Your task to perform on an android device: open app "Firefox Browser" (install if not already installed) Image 0: 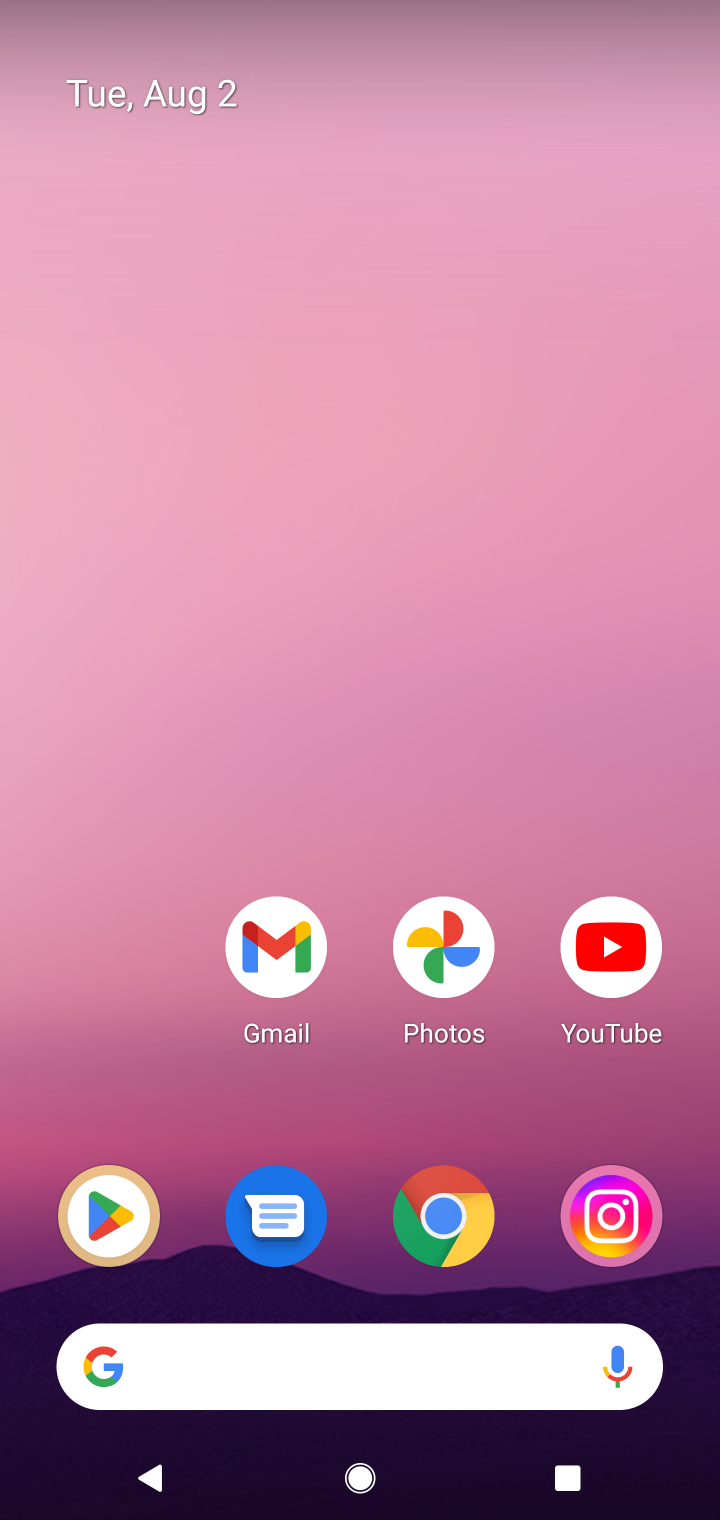
Step 0: click (125, 1224)
Your task to perform on an android device: open app "Firefox Browser" (install if not already installed) Image 1: 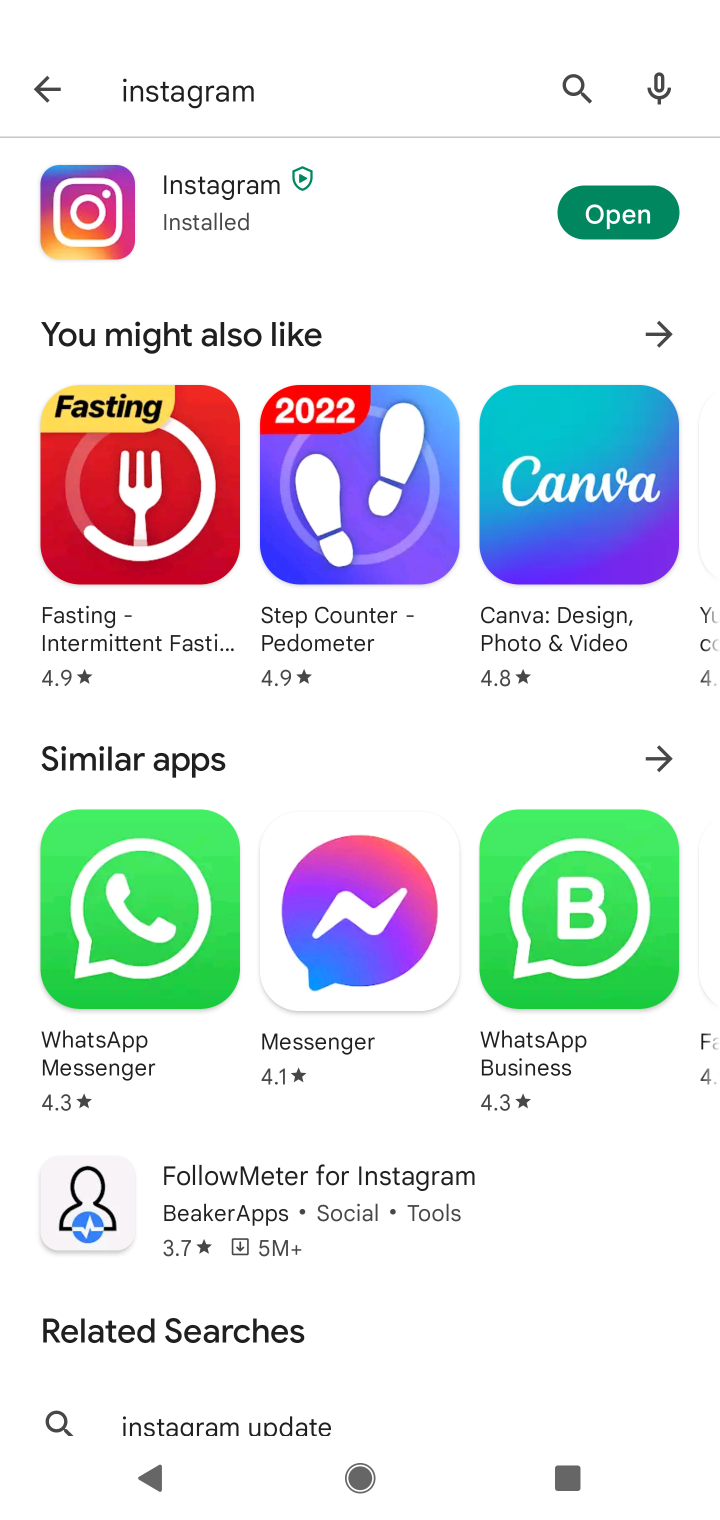
Step 1: click (580, 80)
Your task to perform on an android device: open app "Firefox Browser" (install if not already installed) Image 2: 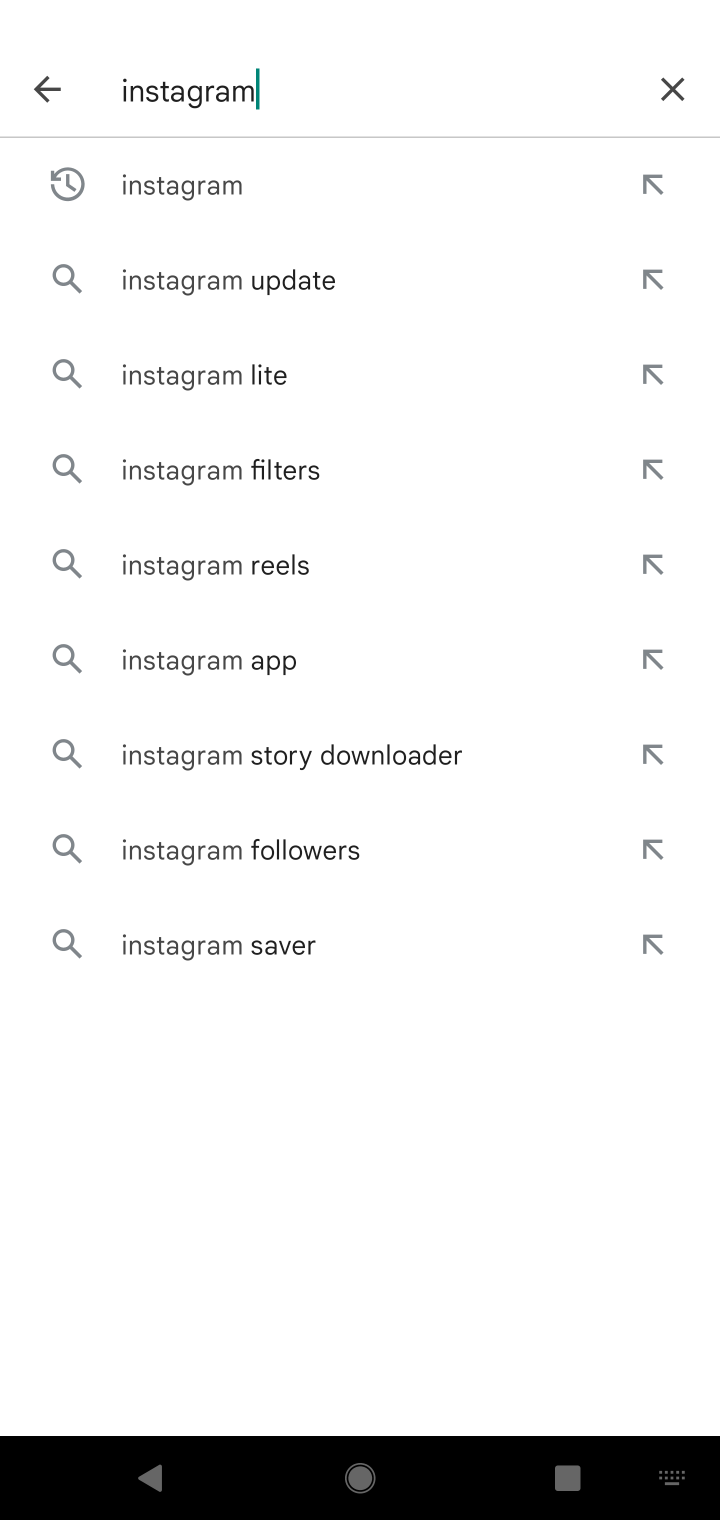
Step 2: click (673, 100)
Your task to perform on an android device: open app "Firefox Browser" (install if not already installed) Image 3: 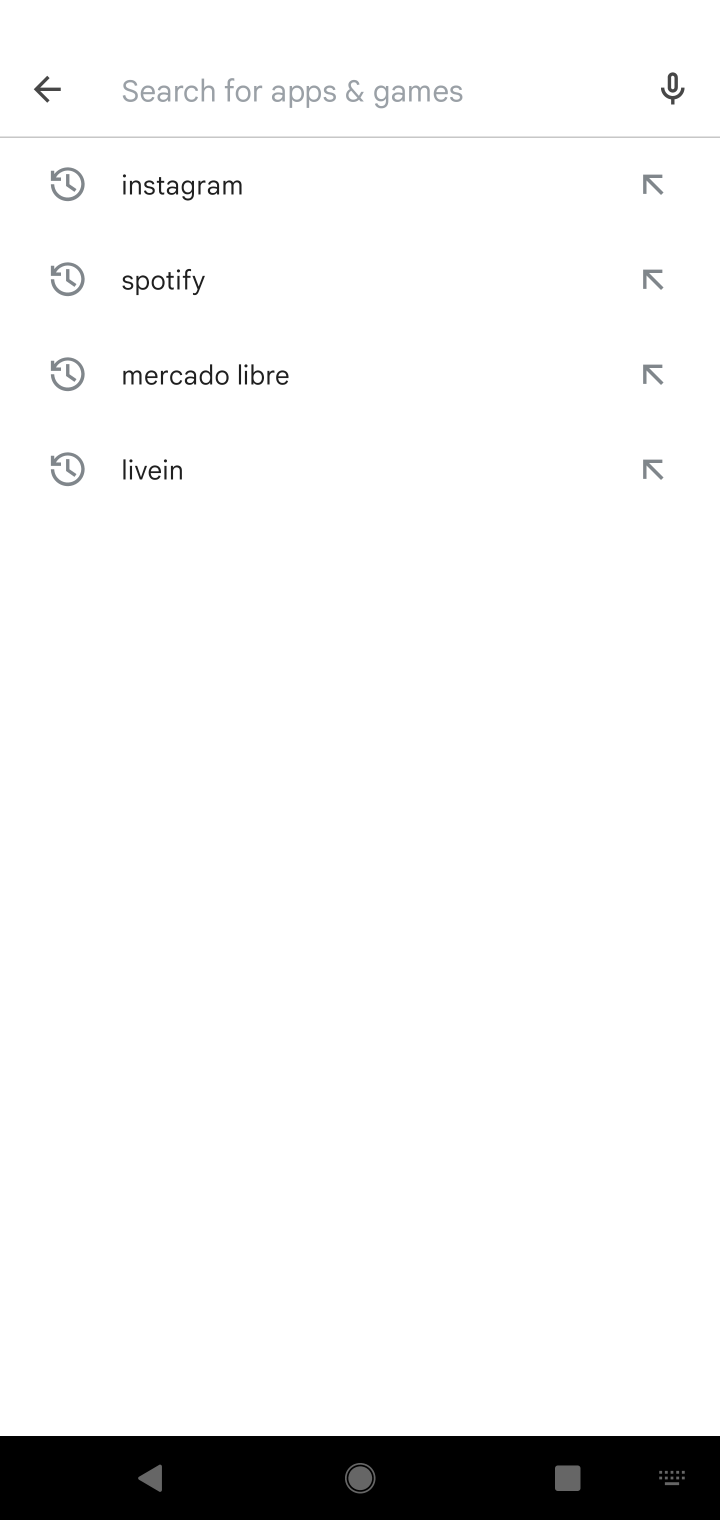
Step 3: type "firebox"
Your task to perform on an android device: open app "Firefox Browser" (install if not already installed) Image 4: 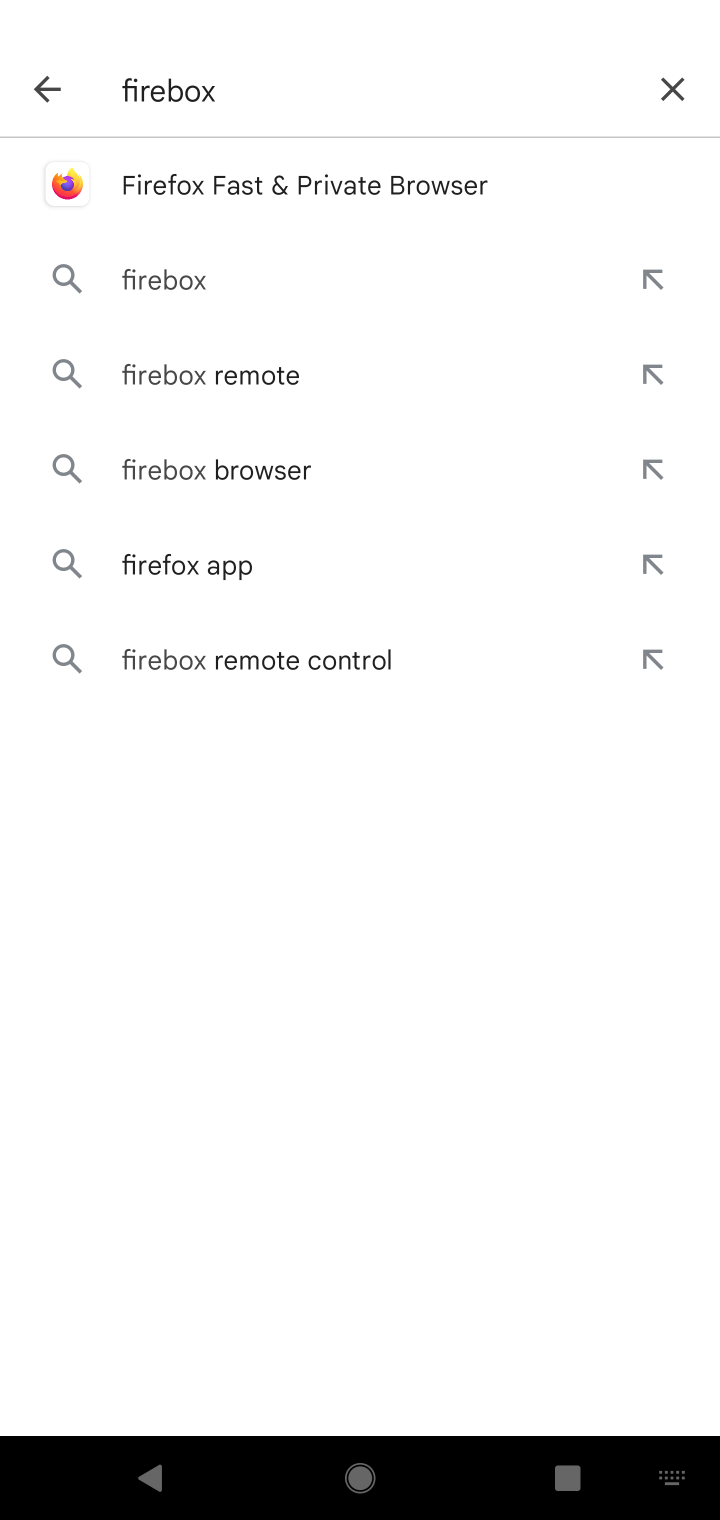
Step 4: click (390, 215)
Your task to perform on an android device: open app "Firefox Browser" (install if not already installed) Image 5: 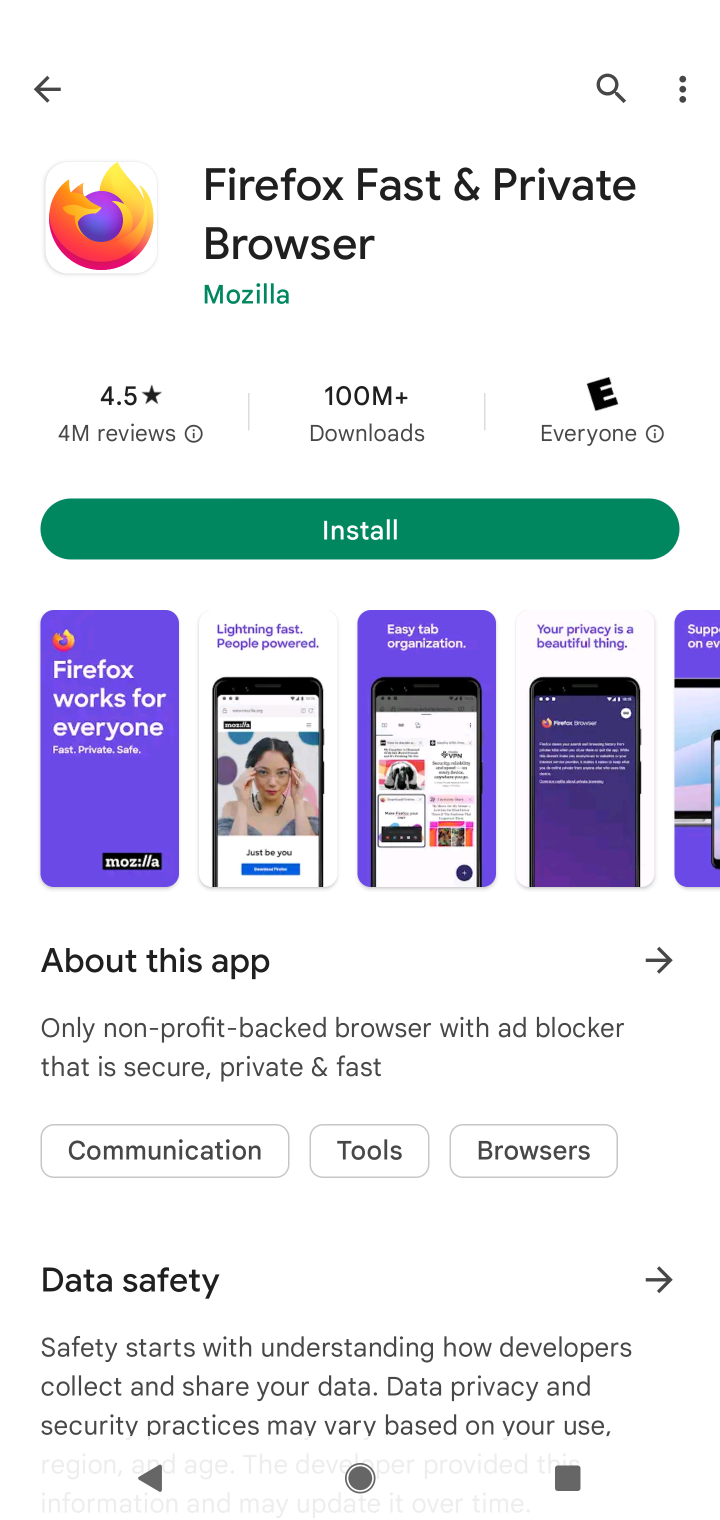
Step 5: click (551, 541)
Your task to perform on an android device: open app "Firefox Browser" (install if not already installed) Image 6: 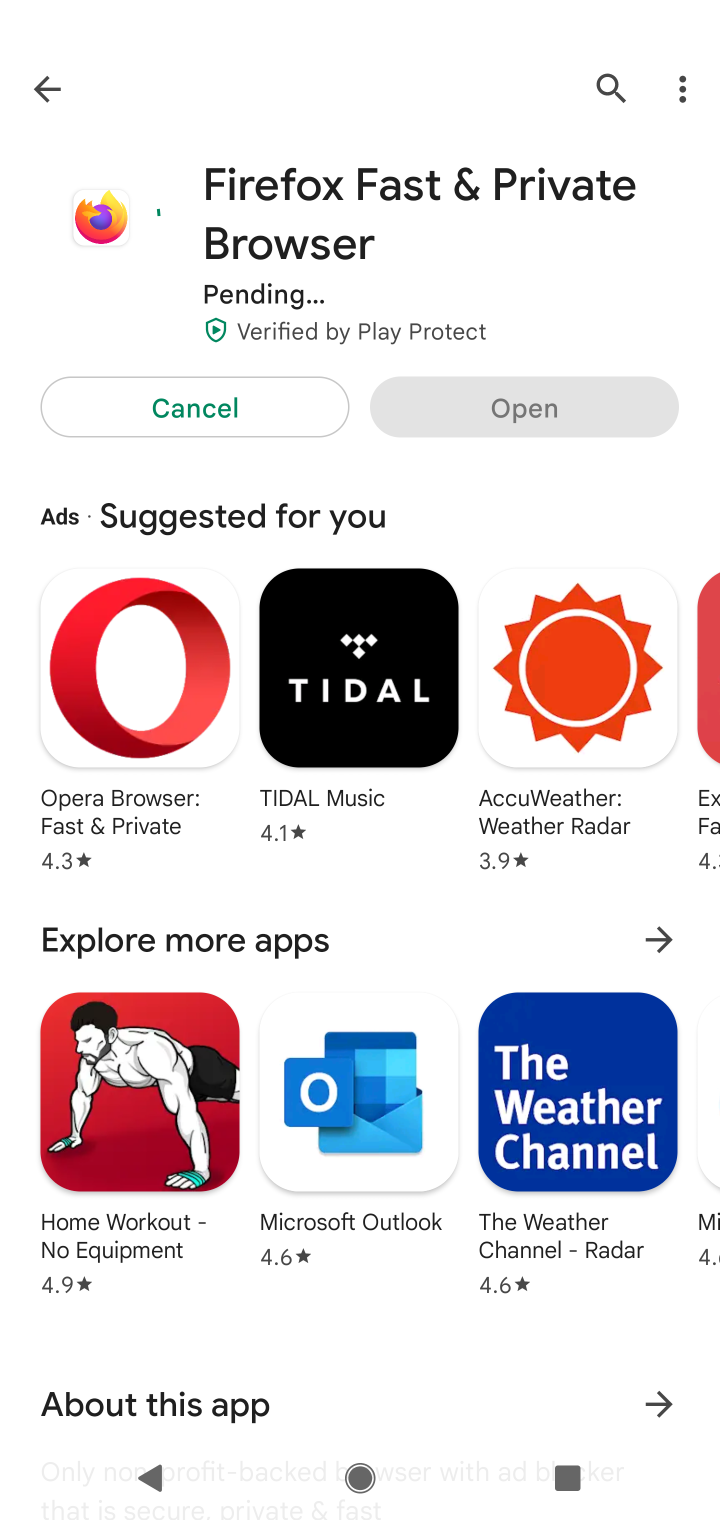
Step 6: task complete